Your task to perform on an android device: Open maps Image 0: 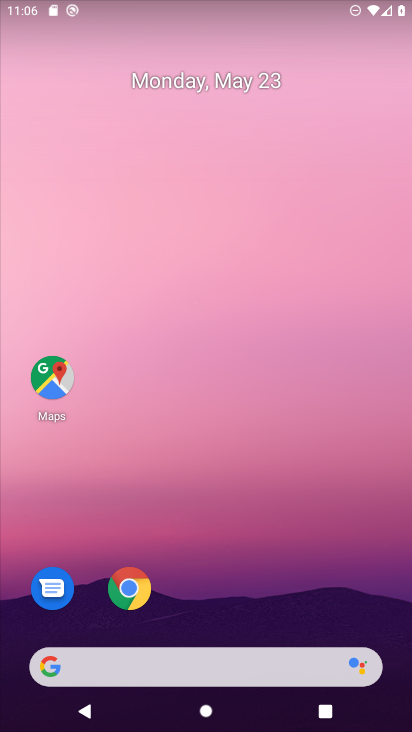
Step 0: click (55, 373)
Your task to perform on an android device: Open maps Image 1: 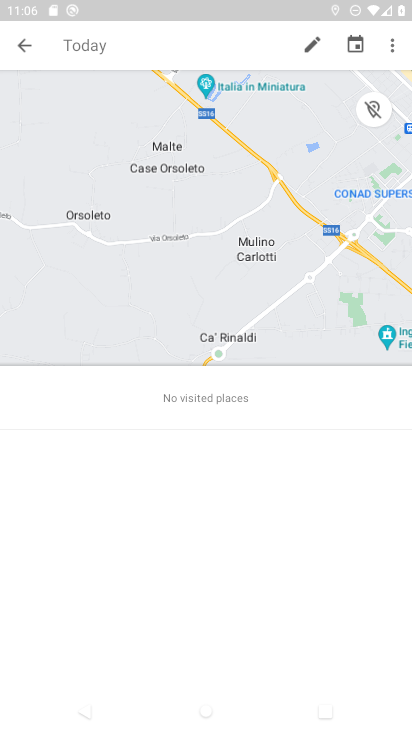
Step 1: task complete